Your task to perform on an android device: turn off location history Image 0: 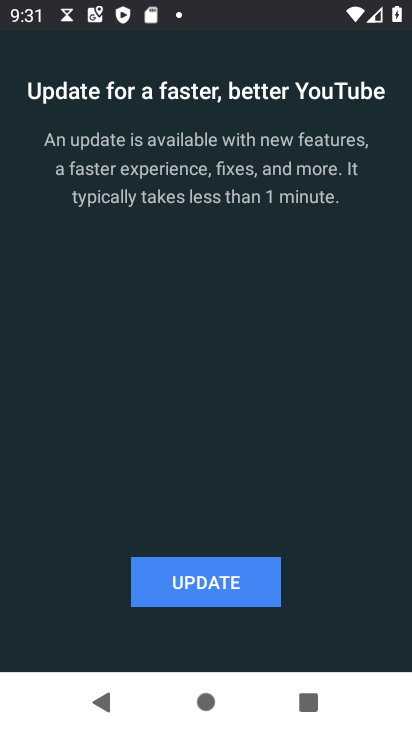
Step 0: press back button
Your task to perform on an android device: turn off location history Image 1: 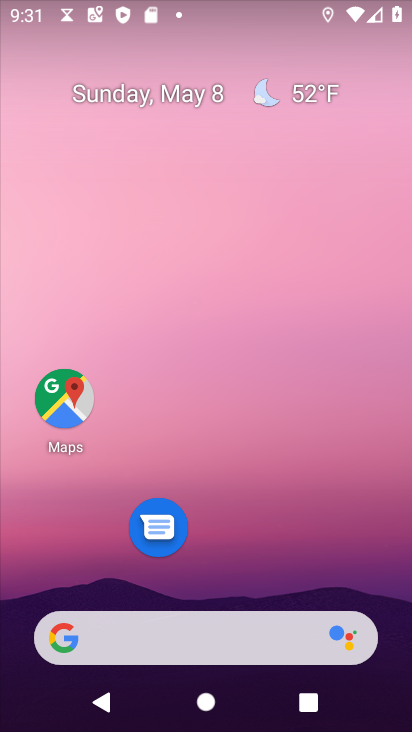
Step 1: drag from (262, 560) to (278, 88)
Your task to perform on an android device: turn off location history Image 2: 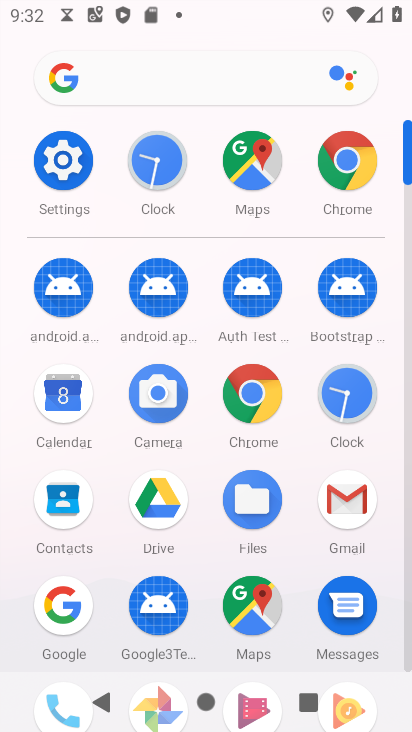
Step 2: click (64, 158)
Your task to perform on an android device: turn off location history Image 3: 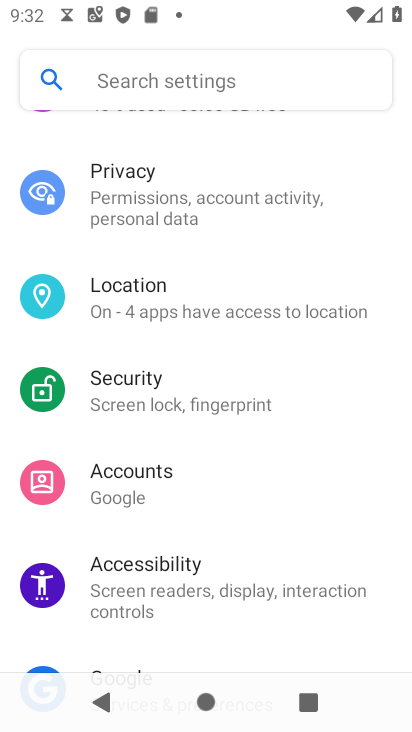
Step 3: click (143, 285)
Your task to perform on an android device: turn off location history Image 4: 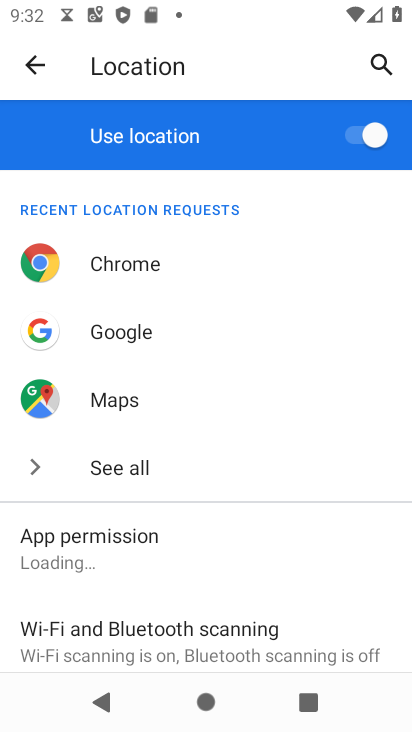
Step 4: drag from (185, 541) to (235, 412)
Your task to perform on an android device: turn off location history Image 5: 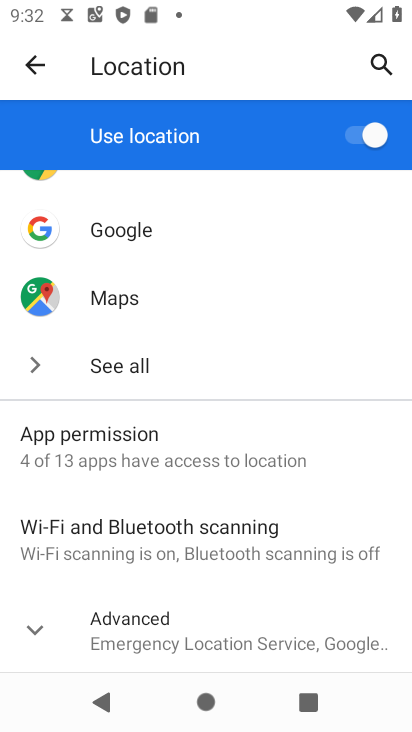
Step 5: click (157, 632)
Your task to perform on an android device: turn off location history Image 6: 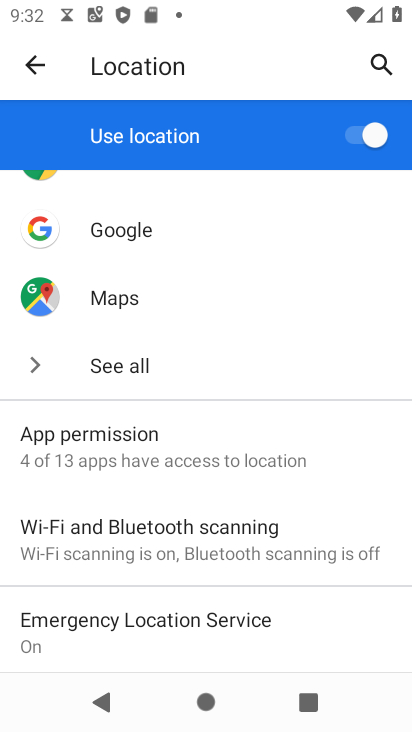
Step 6: drag from (179, 592) to (266, 422)
Your task to perform on an android device: turn off location history Image 7: 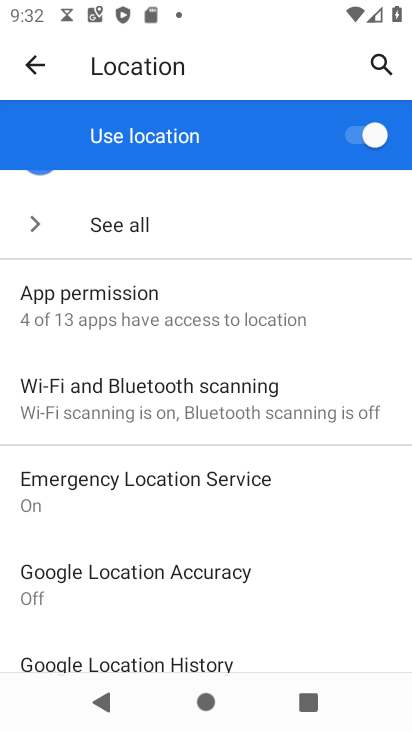
Step 7: drag from (152, 589) to (239, 485)
Your task to perform on an android device: turn off location history Image 8: 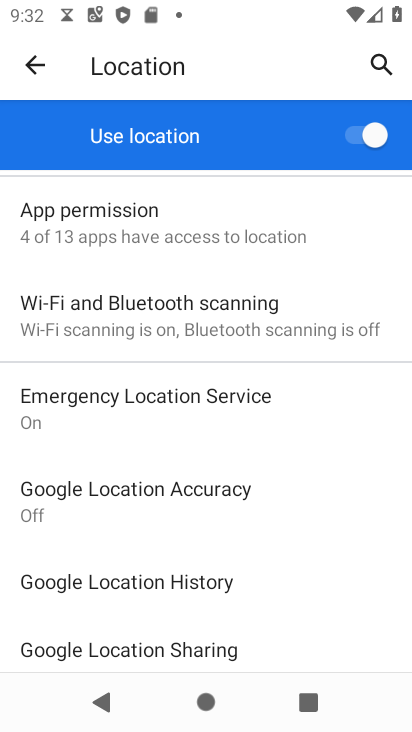
Step 8: click (163, 581)
Your task to perform on an android device: turn off location history Image 9: 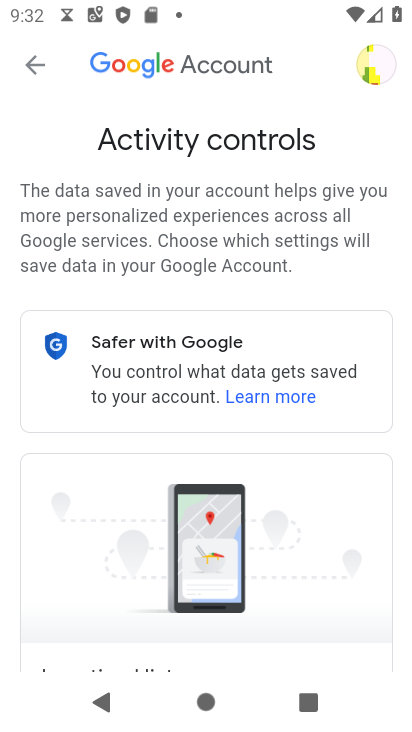
Step 9: drag from (265, 534) to (283, 325)
Your task to perform on an android device: turn off location history Image 10: 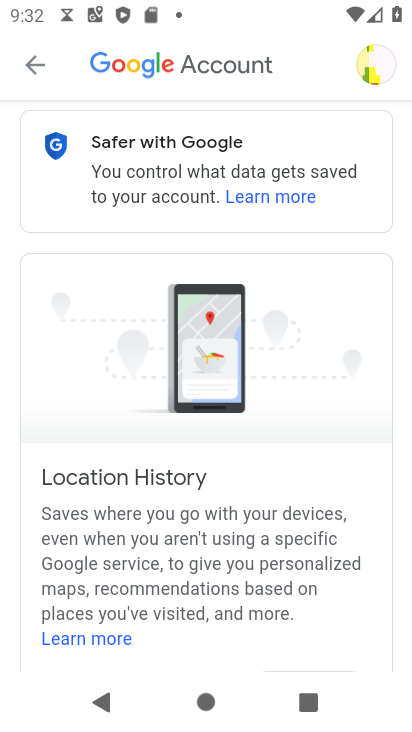
Step 10: drag from (220, 542) to (307, 304)
Your task to perform on an android device: turn off location history Image 11: 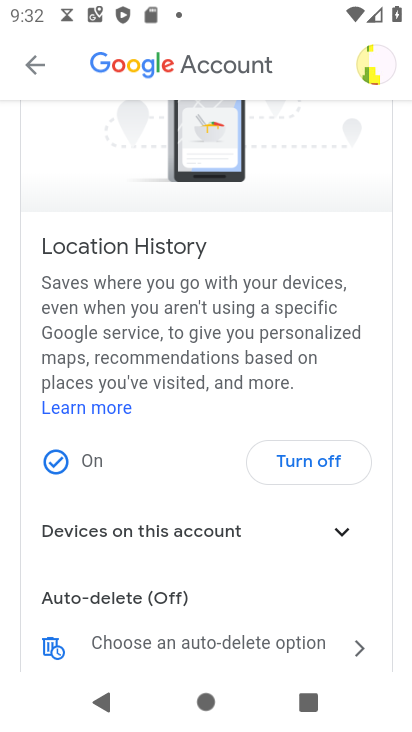
Step 11: click (317, 463)
Your task to perform on an android device: turn off location history Image 12: 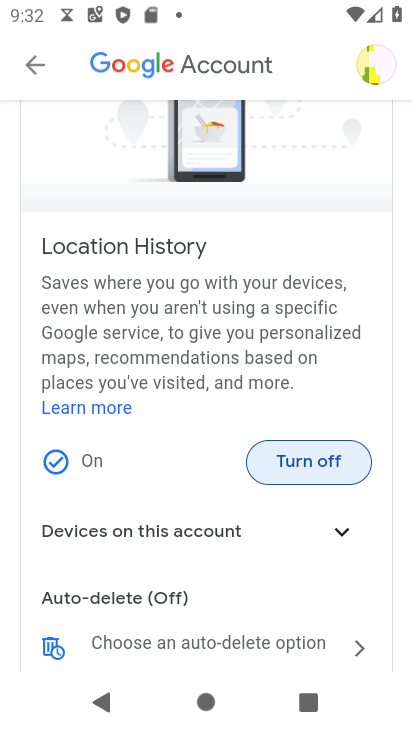
Step 12: click (294, 461)
Your task to perform on an android device: turn off location history Image 13: 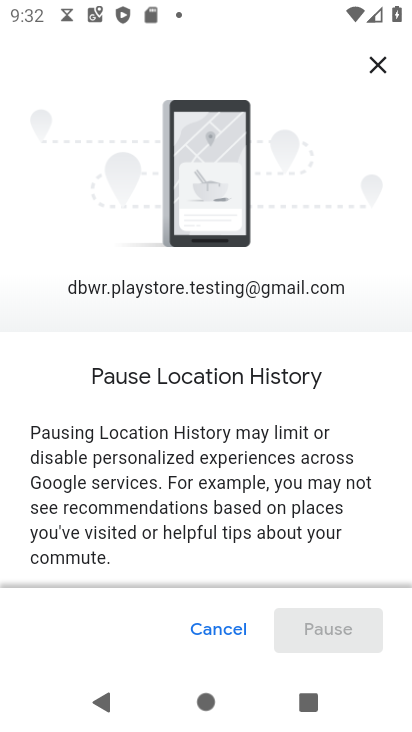
Step 13: drag from (211, 568) to (262, 202)
Your task to perform on an android device: turn off location history Image 14: 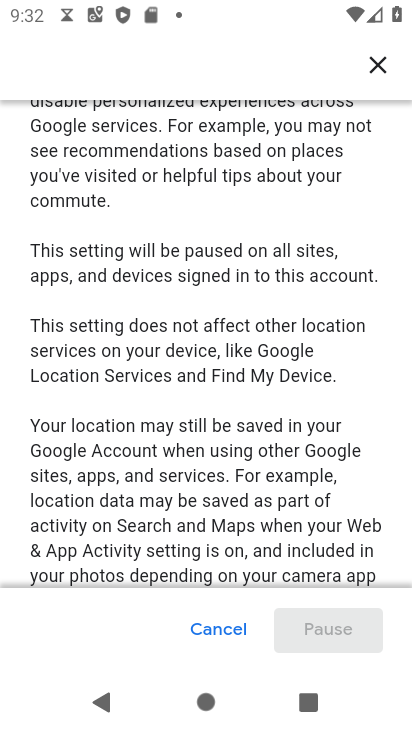
Step 14: drag from (254, 489) to (317, 205)
Your task to perform on an android device: turn off location history Image 15: 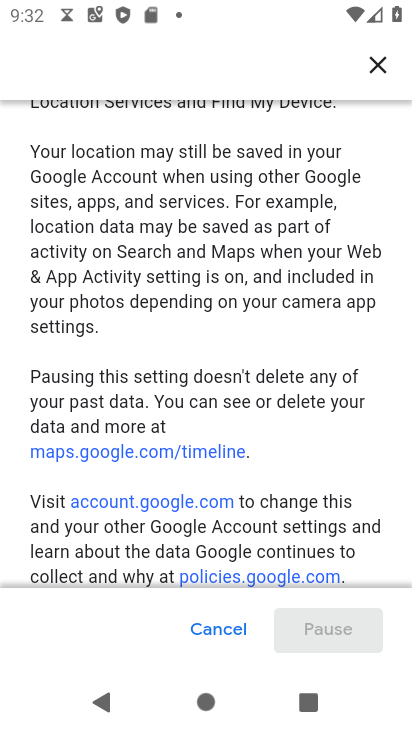
Step 15: drag from (262, 455) to (340, 201)
Your task to perform on an android device: turn off location history Image 16: 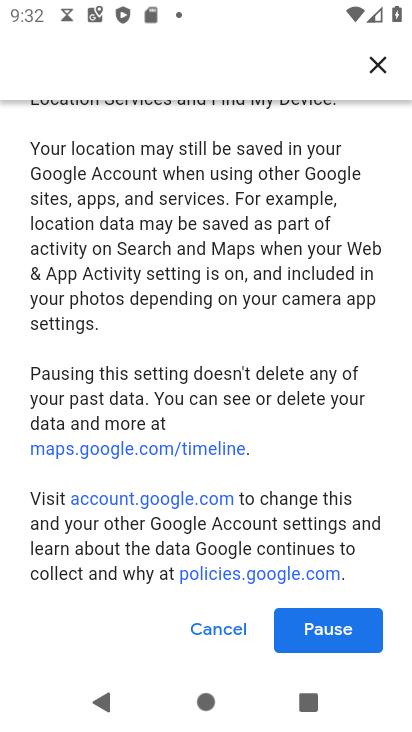
Step 16: click (318, 631)
Your task to perform on an android device: turn off location history Image 17: 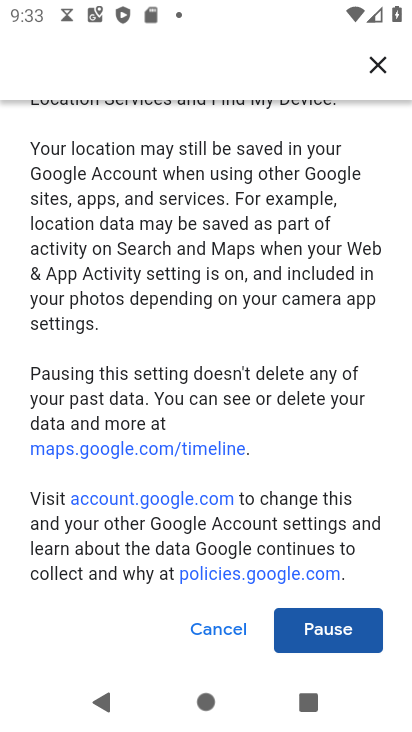
Step 17: click (318, 631)
Your task to perform on an android device: turn off location history Image 18: 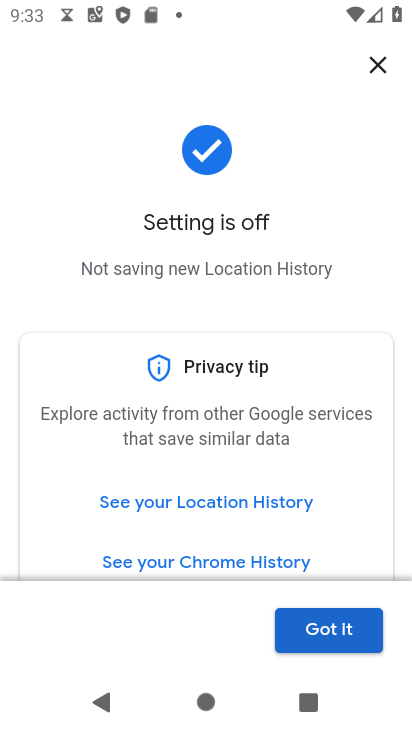
Step 18: click (318, 631)
Your task to perform on an android device: turn off location history Image 19: 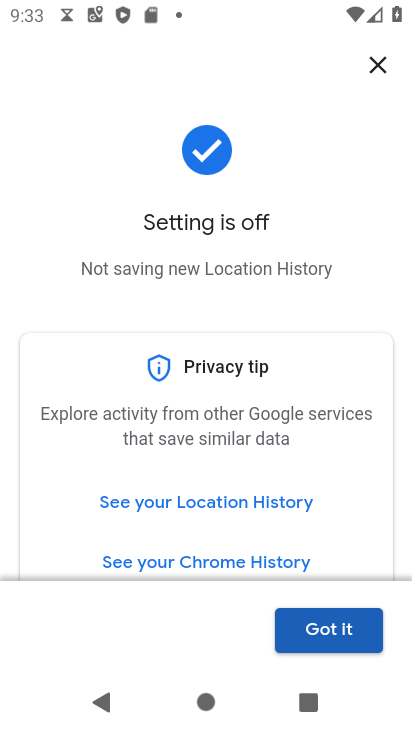
Step 19: task complete